Your task to perform on an android device: add a contact Image 0: 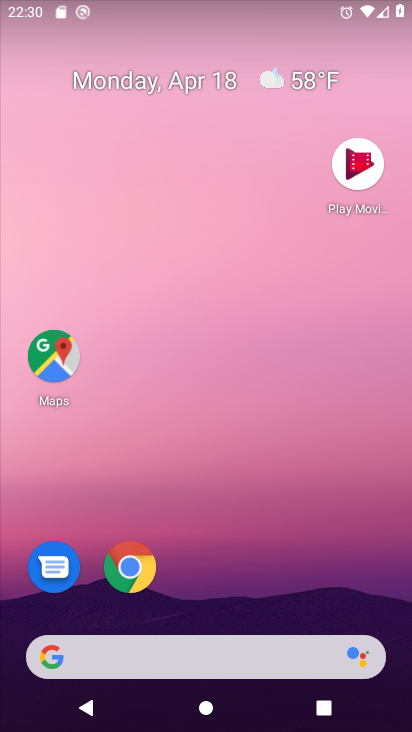
Step 0: drag from (212, 607) to (265, 98)
Your task to perform on an android device: add a contact Image 1: 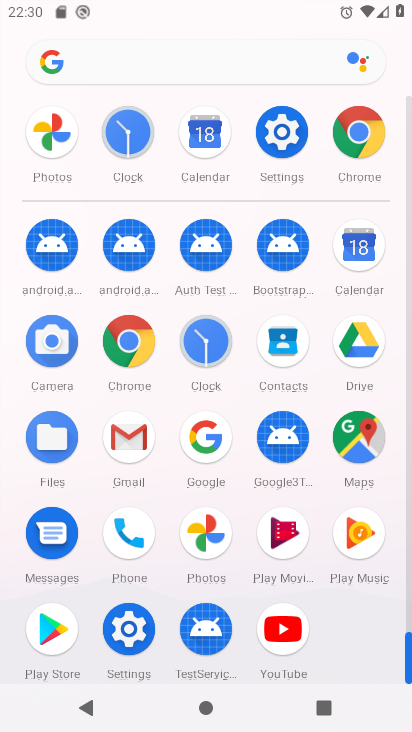
Step 1: click (284, 353)
Your task to perform on an android device: add a contact Image 2: 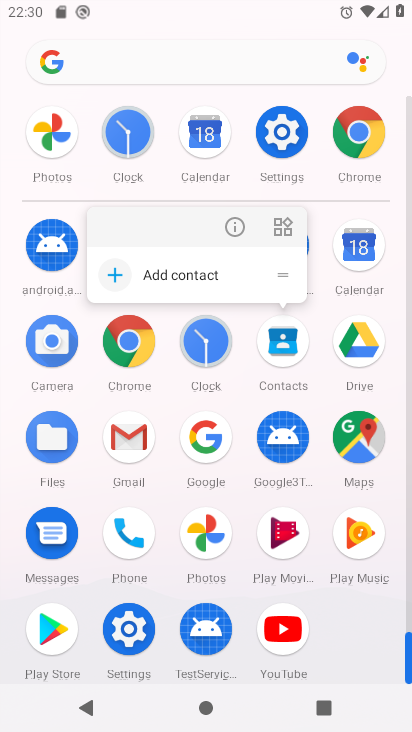
Step 2: click (226, 218)
Your task to perform on an android device: add a contact Image 3: 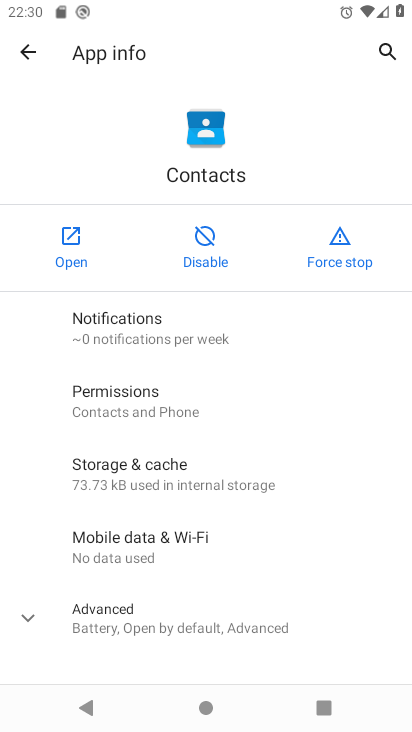
Step 3: click (71, 247)
Your task to perform on an android device: add a contact Image 4: 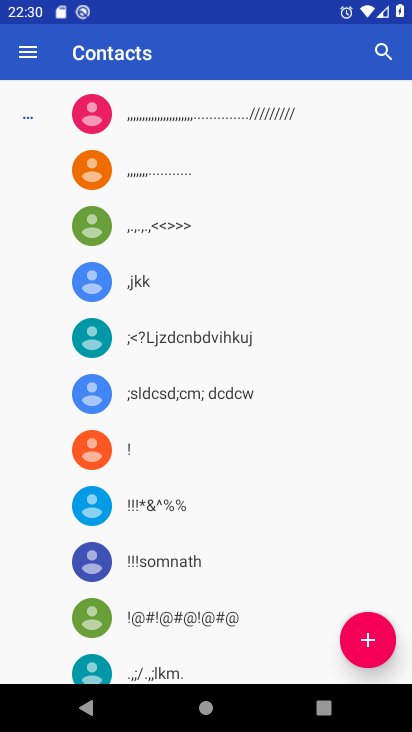
Step 4: click (365, 601)
Your task to perform on an android device: add a contact Image 5: 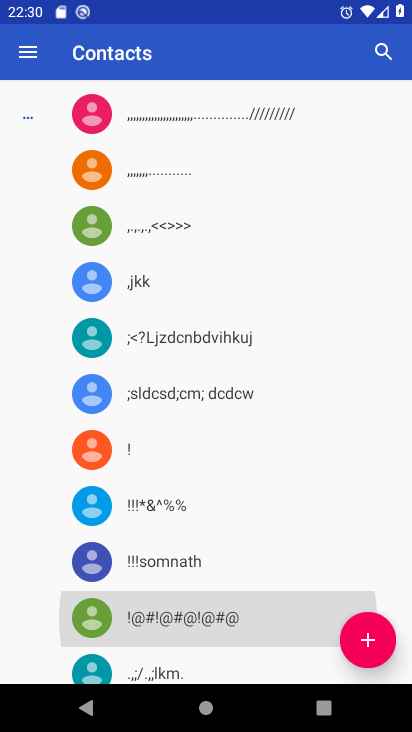
Step 5: click (361, 622)
Your task to perform on an android device: add a contact Image 6: 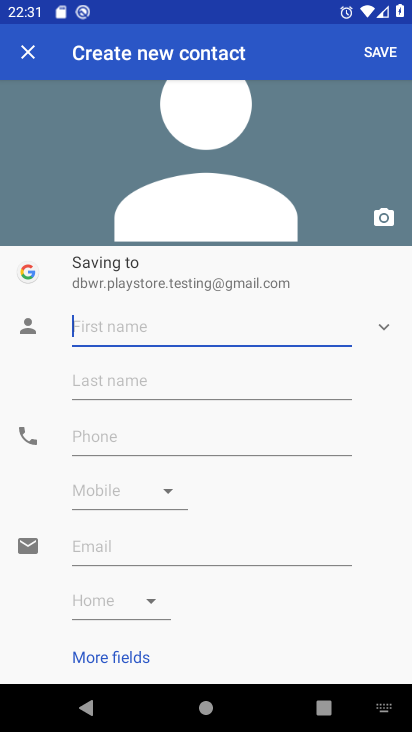
Step 6: click (160, 332)
Your task to perform on an android device: add a contact Image 7: 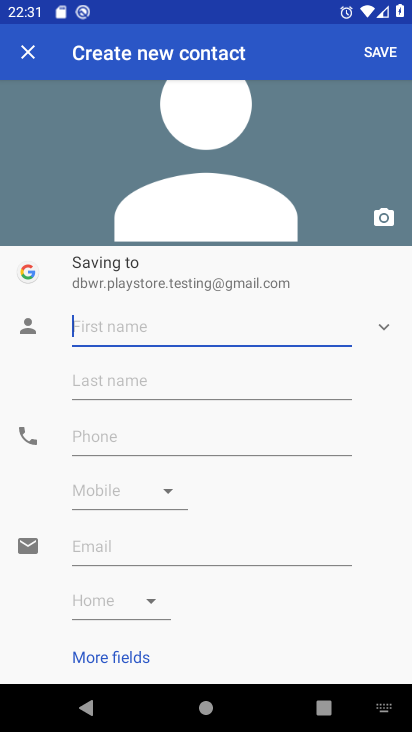
Step 7: type "kji"
Your task to perform on an android device: add a contact Image 8: 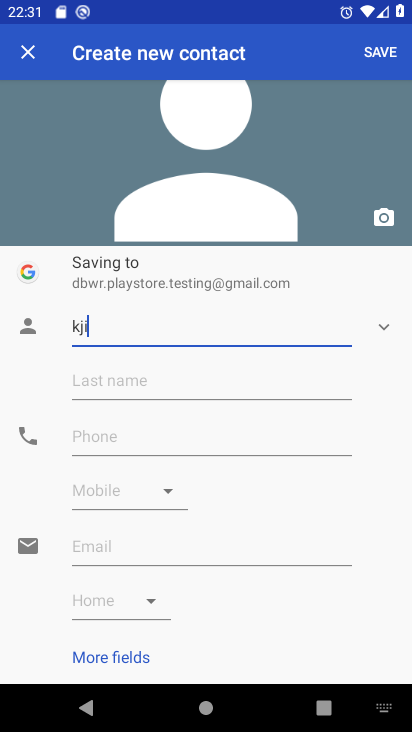
Step 8: click (376, 49)
Your task to perform on an android device: add a contact Image 9: 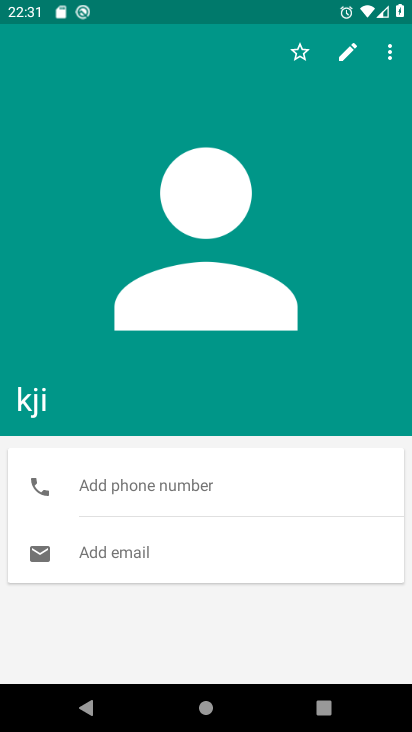
Step 9: task complete